Your task to perform on an android device: Open Google Maps Image 0: 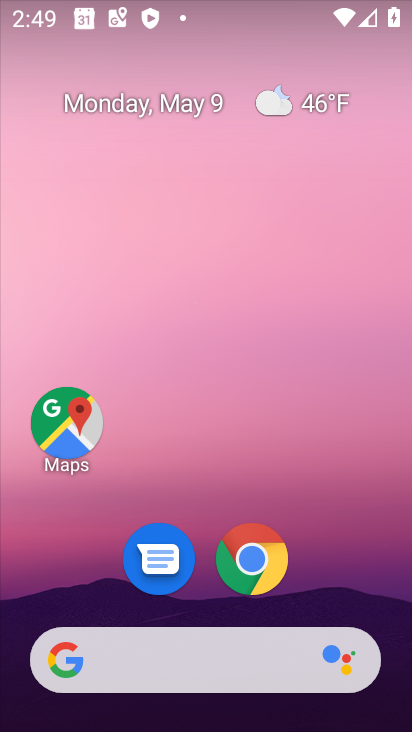
Step 0: drag from (355, 565) to (308, 167)
Your task to perform on an android device: Open Google Maps Image 1: 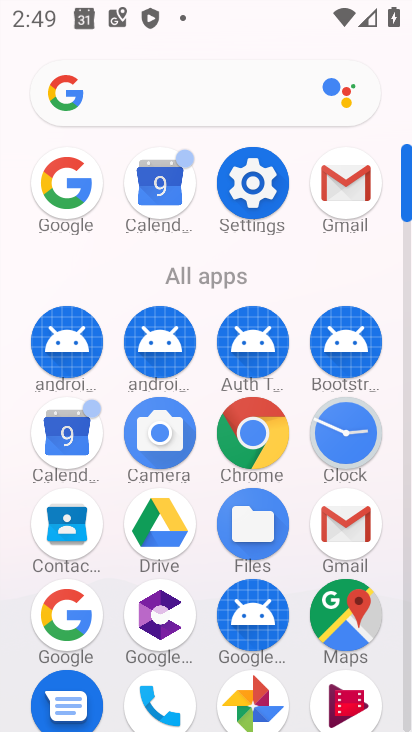
Step 1: click (335, 603)
Your task to perform on an android device: Open Google Maps Image 2: 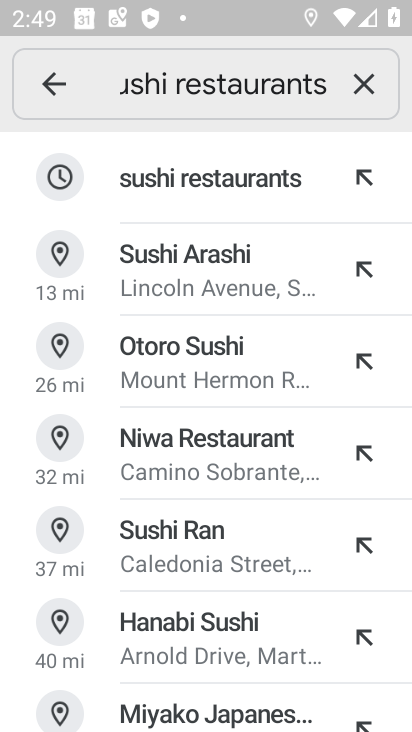
Step 2: task complete